Your task to perform on an android device: turn on notifications settings in the gmail app Image 0: 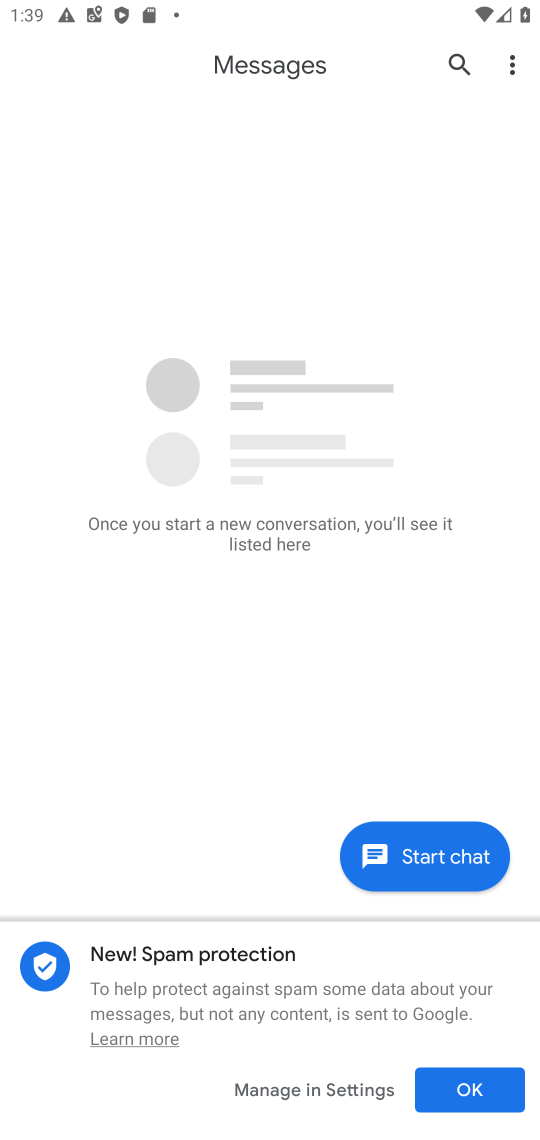
Step 0: press home button
Your task to perform on an android device: turn on notifications settings in the gmail app Image 1: 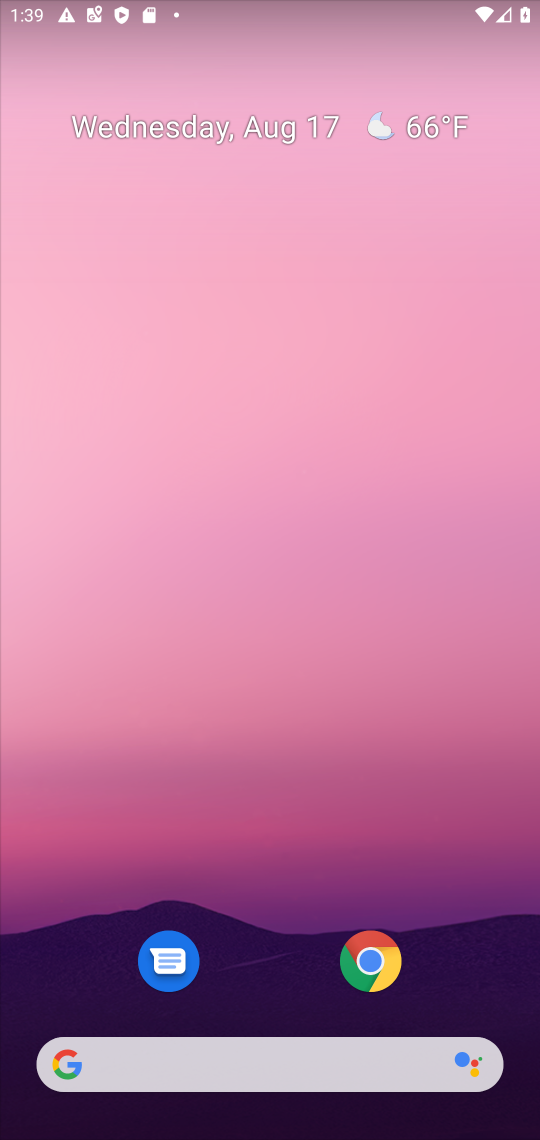
Step 1: drag from (264, 967) to (372, 79)
Your task to perform on an android device: turn on notifications settings in the gmail app Image 2: 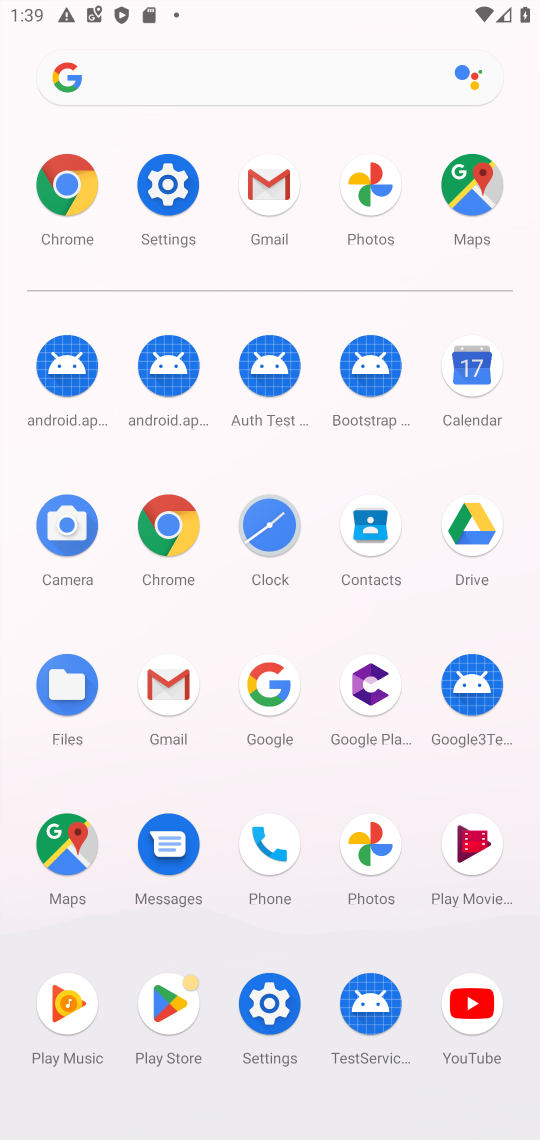
Step 2: click (280, 200)
Your task to perform on an android device: turn on notifications settings in the gmail app Image 3: 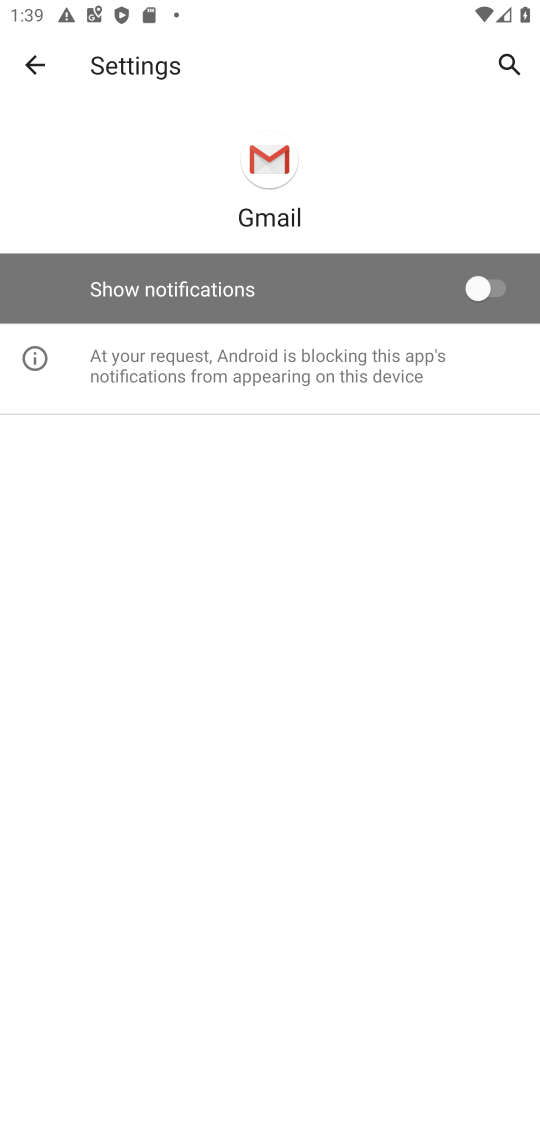
Step 3: click (293, 302)
Your task to perform on an android device: turn on notifications settings in the gmail app Image 4: 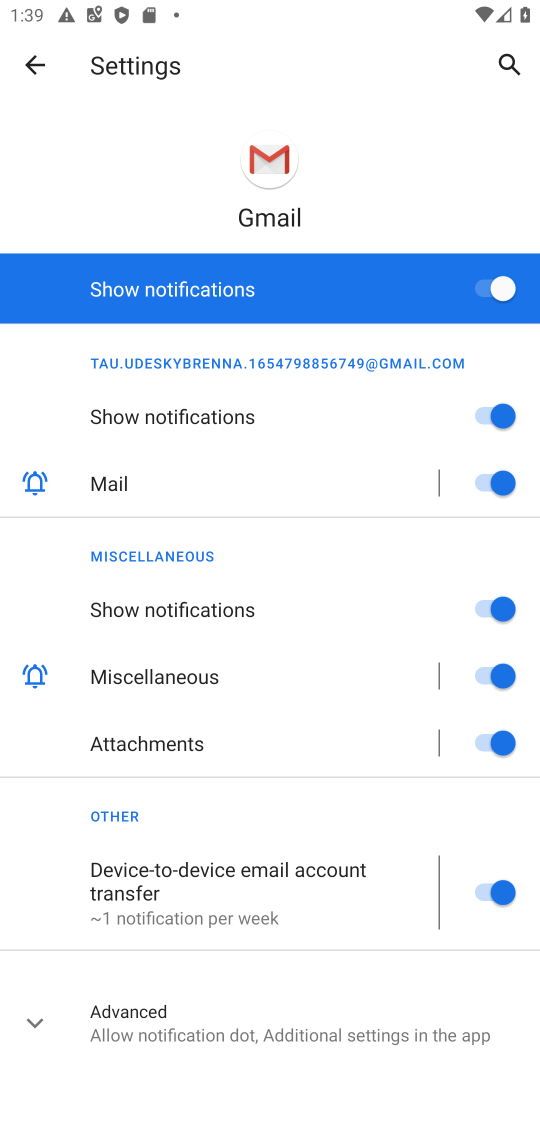
Step 4: click (503, 290)
Your task to perform on an android device: turn on notifications settings in the gmail app Image 5: 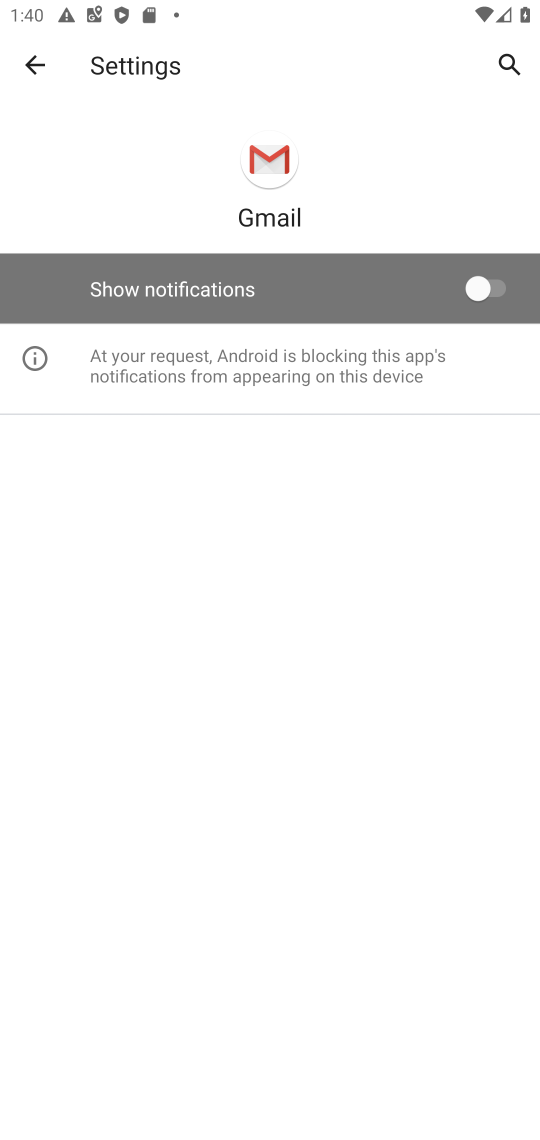
Step 5: click (456, 282)
Your task to perform on an android device: turn on notifications settings in the gmail app Image 6: 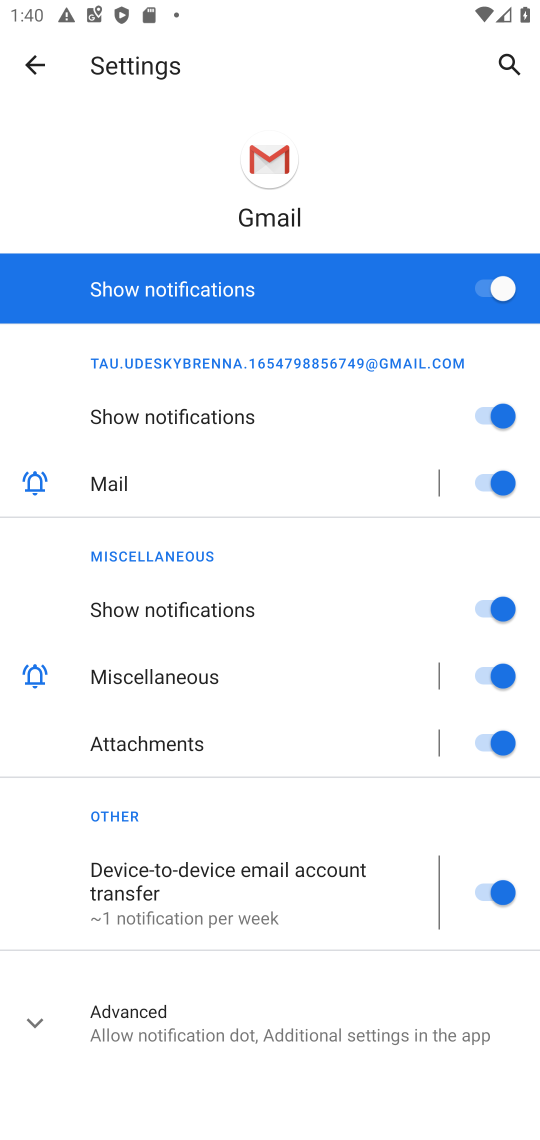
Step 6: task complete